Your task to perform on an android device: allow notifications from all sites in the chrome app Image 0: 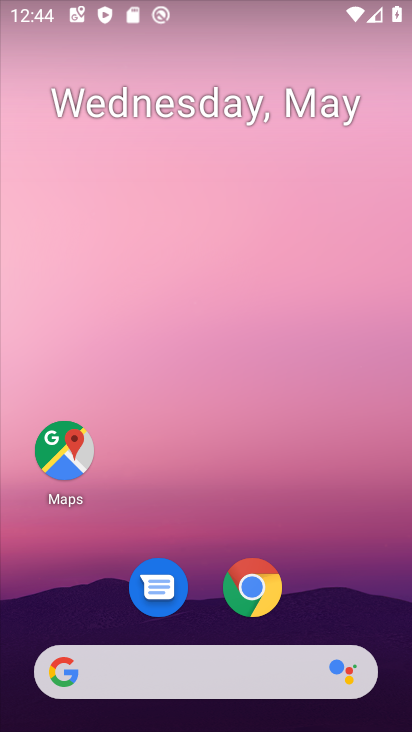
Step 0: drag from (379, 538) to (391, 169)
Your task to perform on an android device: allow notifications from all sites in the chrome app Image 1: 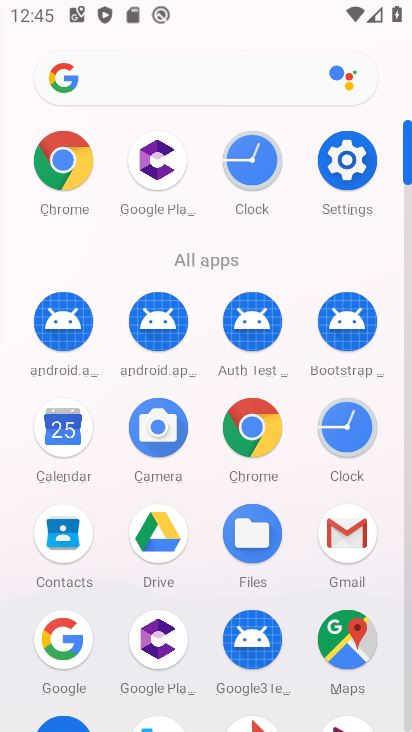
Step 1: click (252, 445)
Your task to perform on an android device: allow notifications from all sites in the chrome app Image 2: 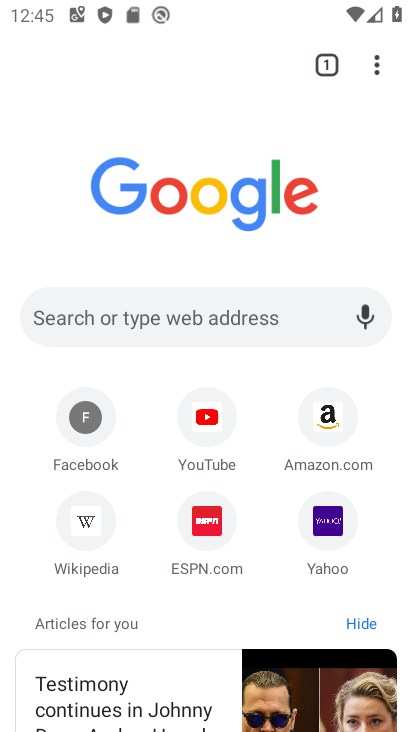
Step 2: click (376, 74)
Your task to perform on an android device: allow notifications from all sites in the chrome app Image 3: 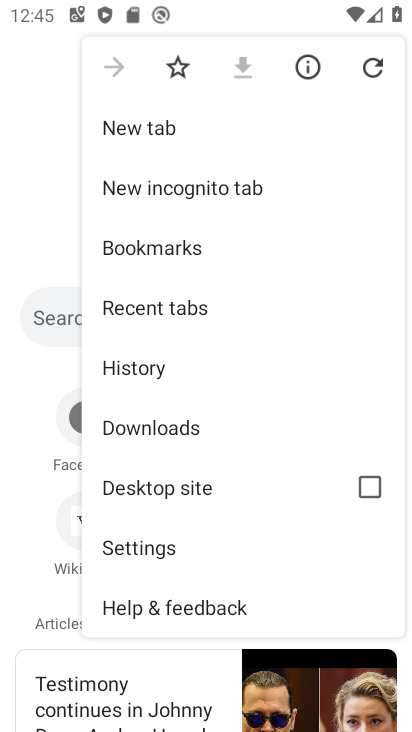
Step 3: click (190, 553)
Your task to perform on an android device: allow notifications from all sites in the chrome app Image 4: 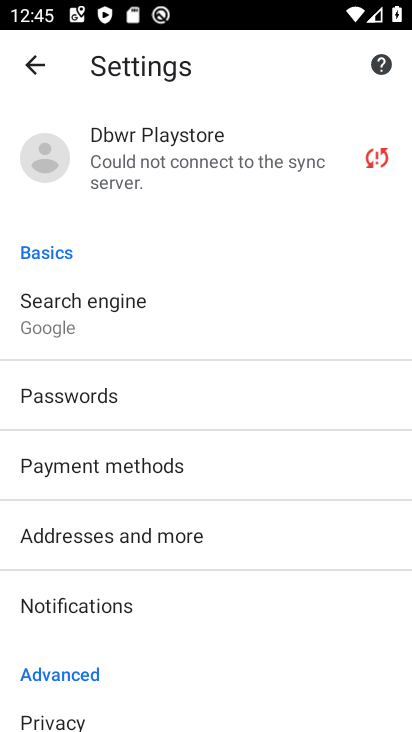
Step 4: drag from (327, 653) to (321, 520)
Your task to perform on an android device: allow notifications from all sites in the chrome app Image 5: 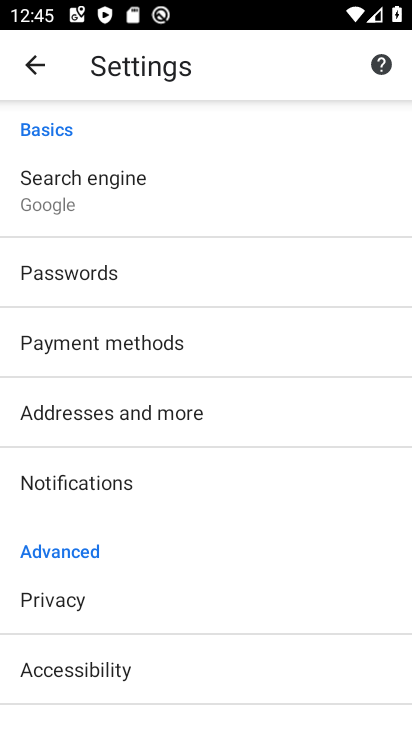
Step 5: drag from (333, 558) to (322, 387)
Your task to perform on an android device: allow notifications from all sites in the chrome app Image 6: 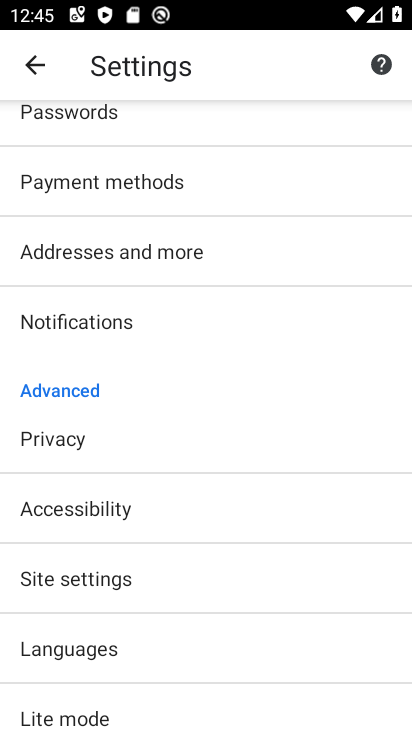
Step 6: drag from (305, 608) to (303, 453)
Your task to perform on an android device: allow notifications from all sites in the chrome app Image 7: 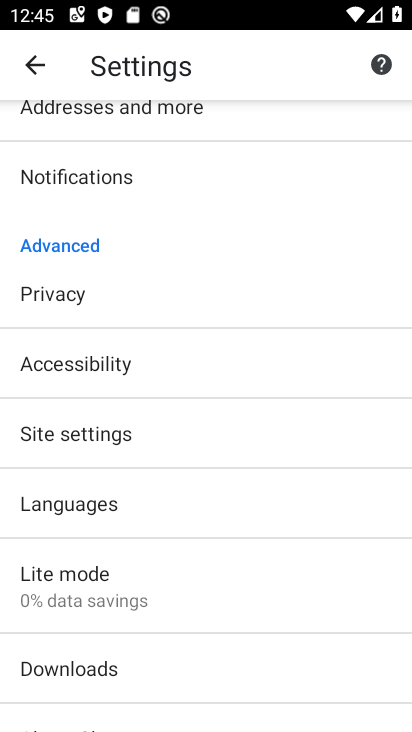
Step 7: drag from (282, 622) to (278, 410)
Your task to perform on an android device: allow notifications from all sites in the chrome app Image 8: 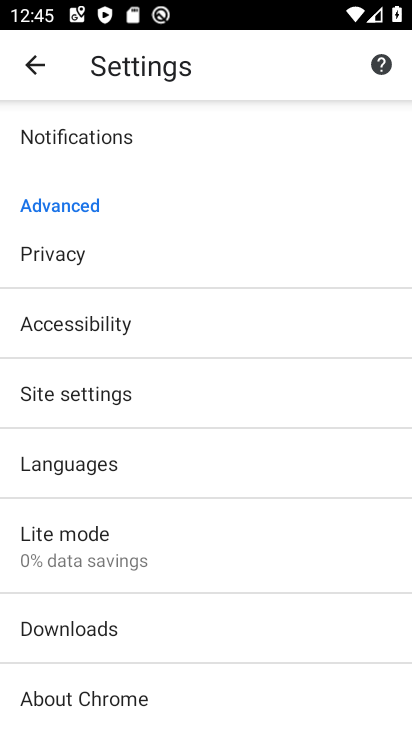
Step 8: click (179, 390)
Your task to perform on an android device: allow notifications from all sites in the chrome app Image 9: 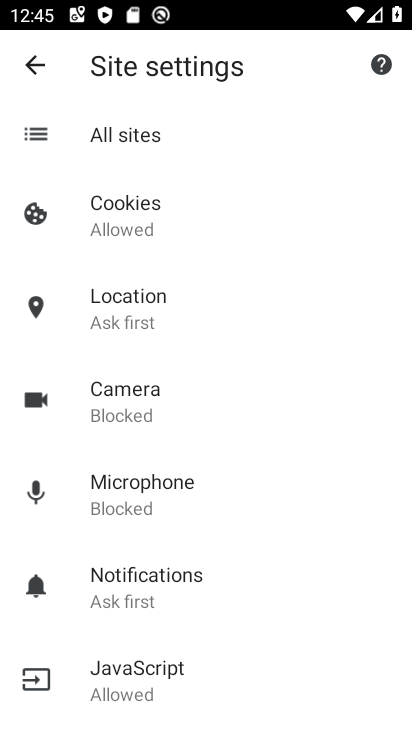
Step 9: drag from (275, 566) to (295, 493)
Your task to perform on an android device: allow notifications from all sites in the chrome app Image 10: 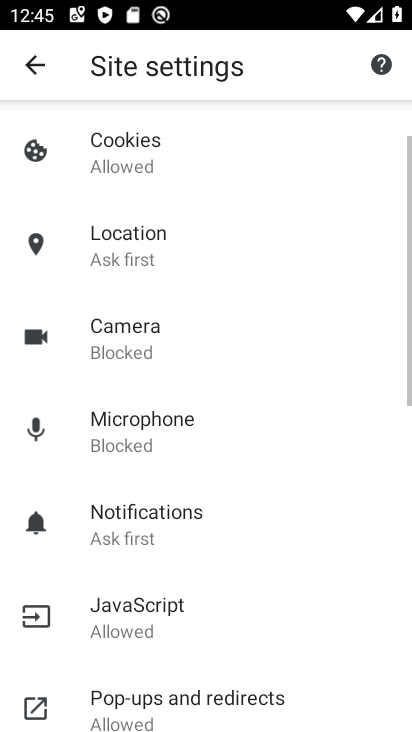
Step 10: drag from (294, 594) to (311, 503)
Your task to perform on an android device: allow notifications from all sites in the chrome app Image 11: 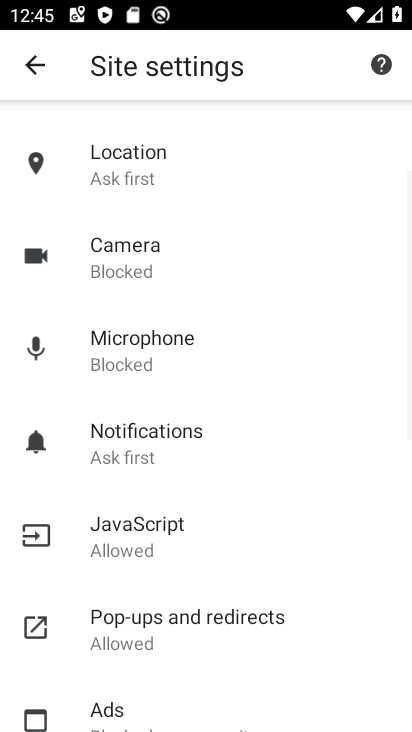
Step 11: drag from (312, 611) to (340, 514)
Your task to perform on an android device: allow notifications from all sites in the chrome app Image 12: 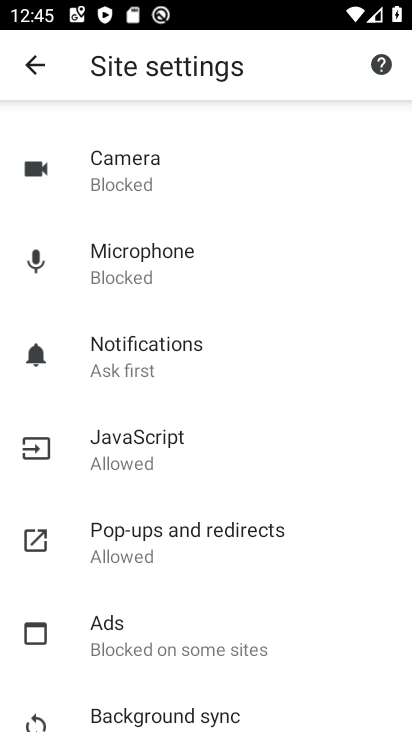
Step 12: drag from (344, 626) to (344, 525)
Your task to perform on an android device: allow notifications from all sites in the chrome app Image 13: 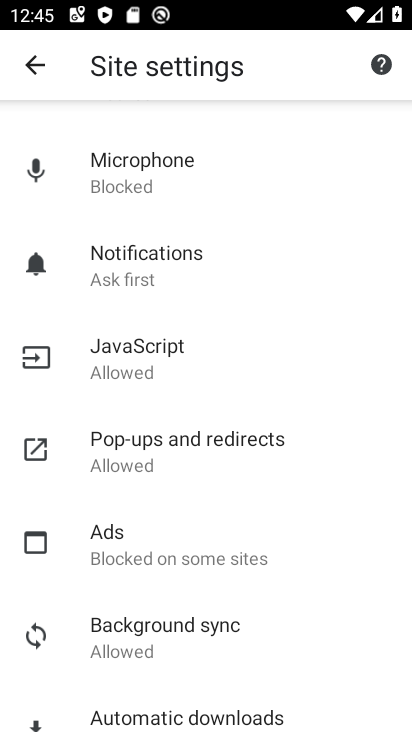
Step 13: drag from (320, 349) to (321, 465)
Your task to perform on an android device: allow notifications from all sites in the chrome app Image 14: 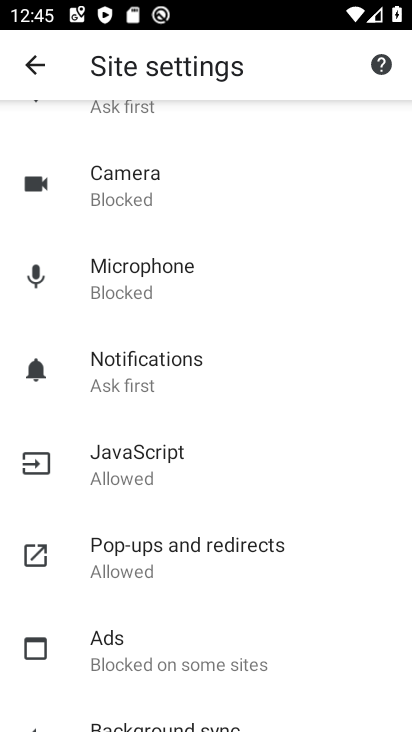
Step 14: drag from (291, 351) to (298, 463)
Your task to perform on an android device: allow notifications from all sites in the chrome app Image 15: 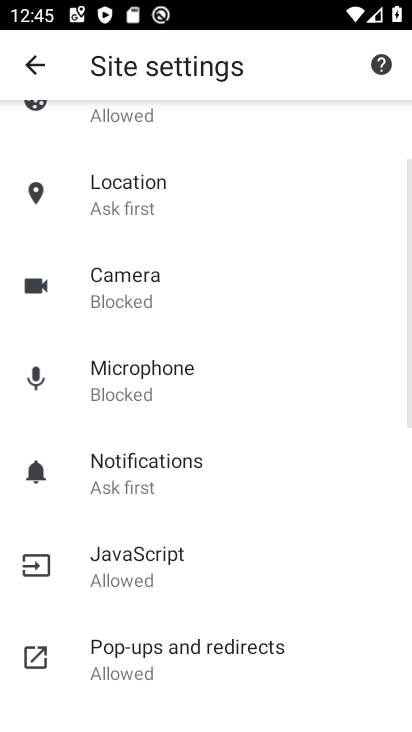
Step 15: click (171, 446)
Your task to perform on an android device: allow notifications from all sites in the chrome app Image 16: 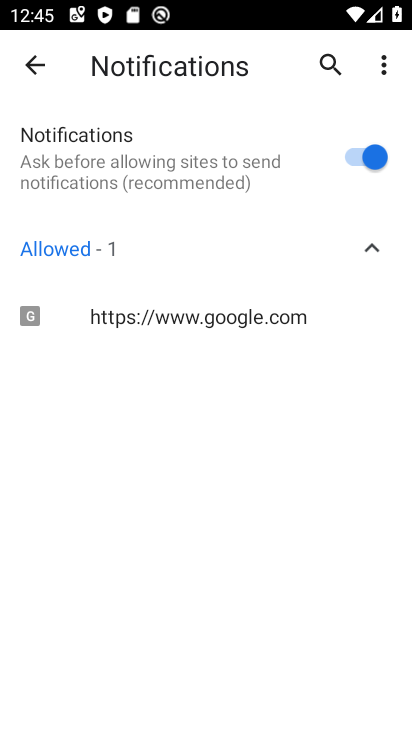
Step 16: task complete